Your task to perform on an android device: Open Yahoo.com Image 0: 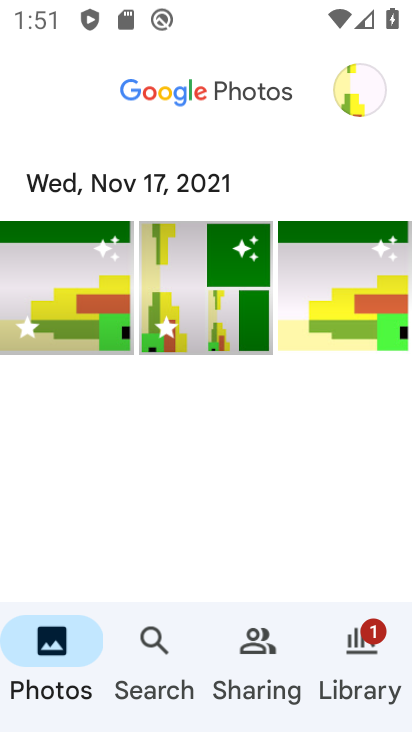
Step 0: press home button
Your task to perform on an android device: Open Yahoo.com Image 1: 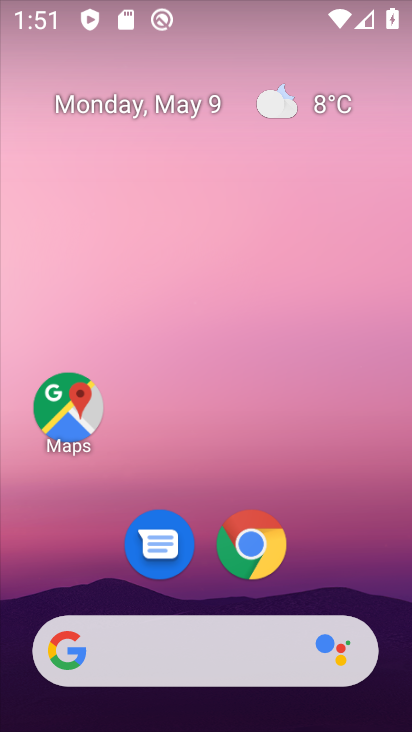
Step 1: click (259, 552)
Your task to perform on an android device: Open Yahoo.com Image 2: 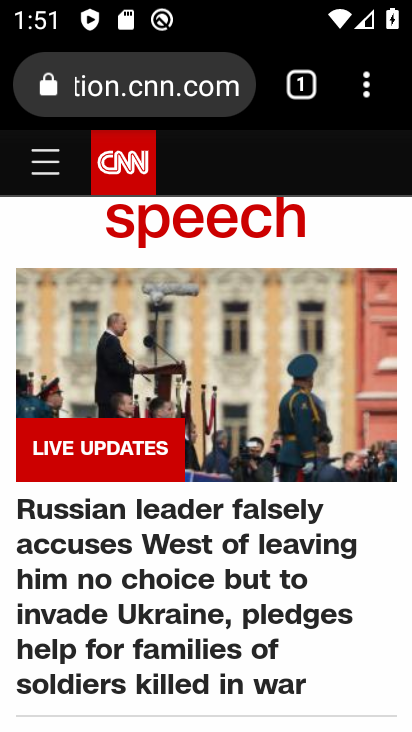
Step 2: click (299, 99)
Your task to perform on an android device: Open Yahoo.com Image 3: 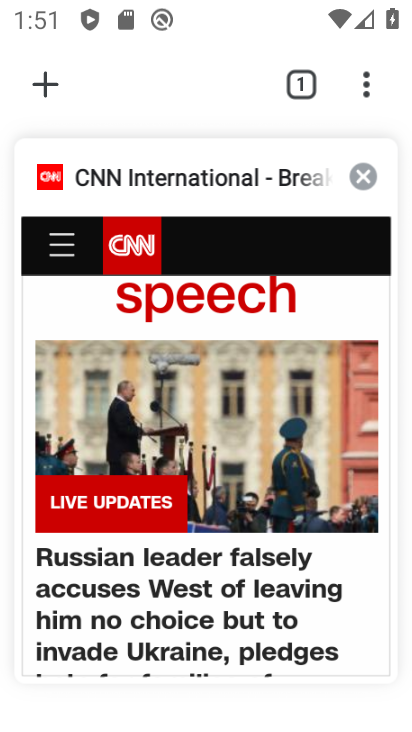
Step 3: click (39, 79)
Your task to perform on an android device: Open Yahoo.com Image 4: 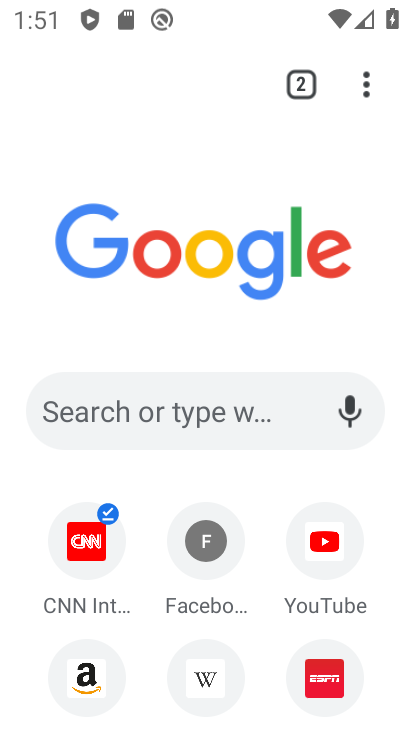
Step 4: drag from (255, 603) to (300, 349)
Your task to perform on an android device: Open Yahoo.com Image 5: 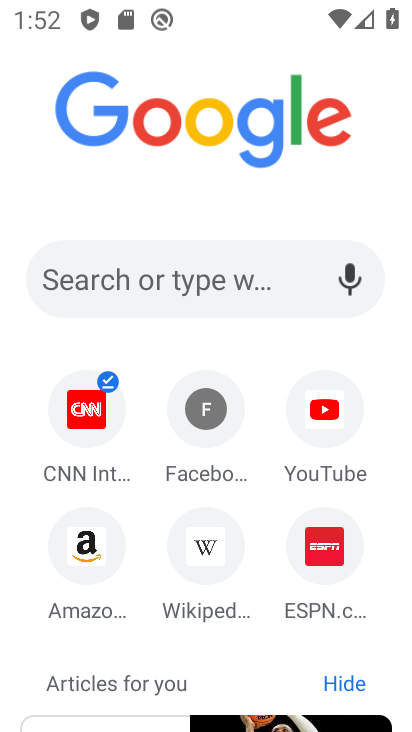
Step 5: click (236, 294)
Your task to perform on an android device: Open Yahoo.com Image 6: 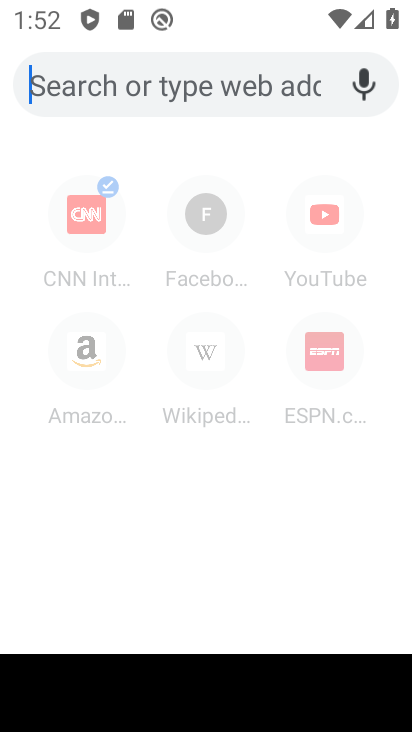
Step 6: type "Yahoo.com"
Your task to perform on an android device: Open Yahoo.com Image 7: 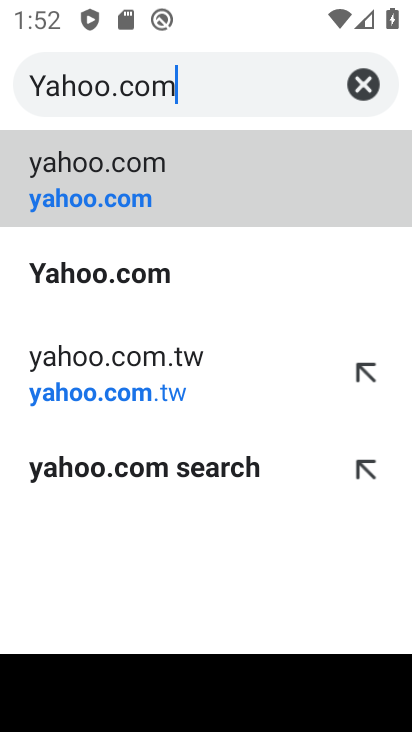
Step 7: click (221, 199)
Your task to perform on an android device: Open Yahoo.com Image 8: 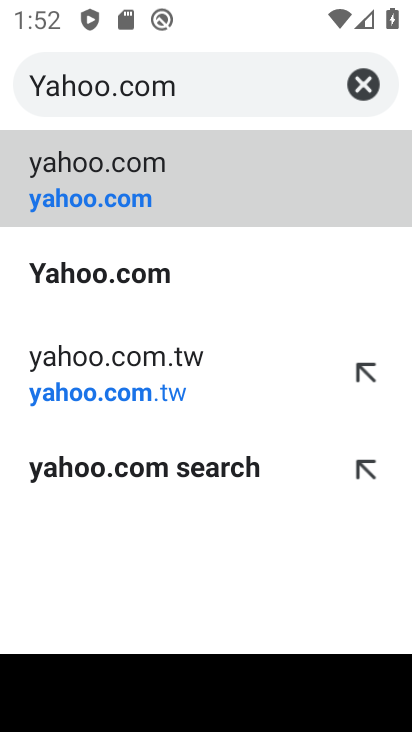
Step 8: click (221, 199)
Your task to perform on an android device: Open Yahoo.com Image 9: 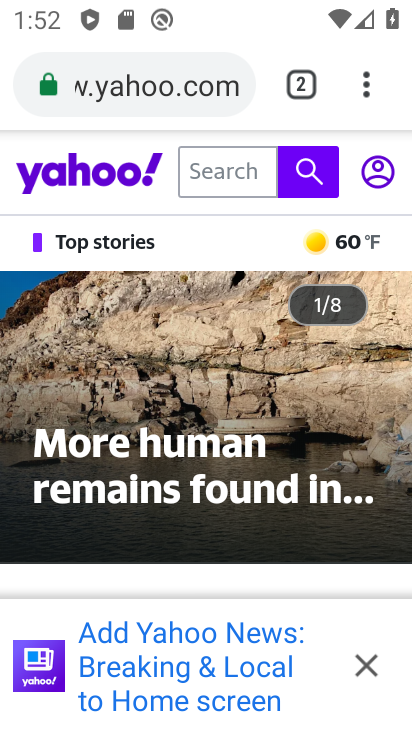
Step 9: click (374, 651)
Your task to perform on an android device: Open Yahoo.com Image 10: 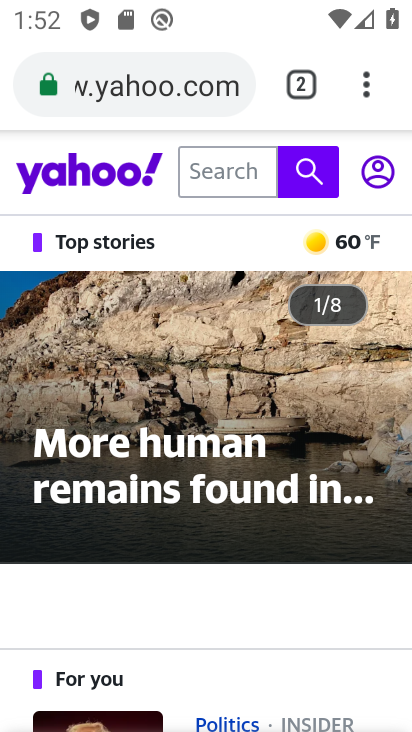
Step 10: task complete